Your task to perform on an android device: Go to Maps Image 0: 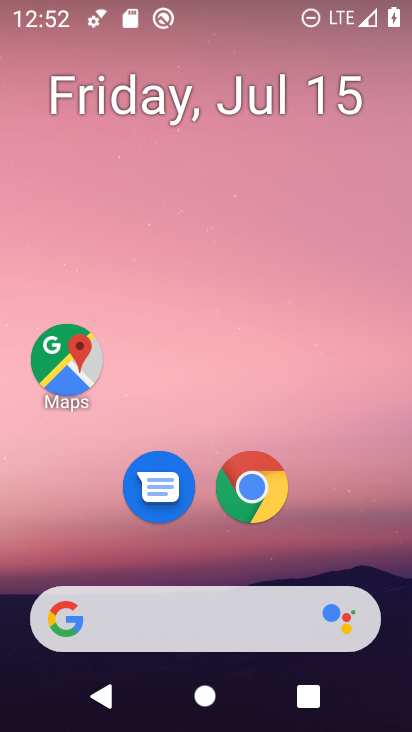
Step 0: drag from (233, 566) to (160, 50)
Your task to perform on an android device: Go to Maps Image 1: 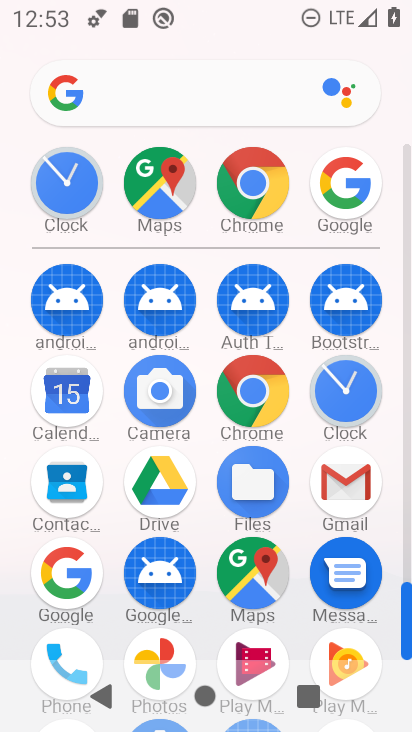
Step 1: click (163, 207)
Your task to perform on an android device: Go to Maps Image 2: 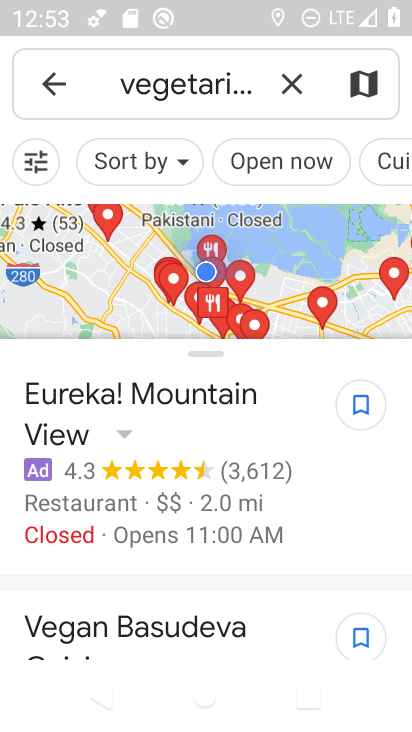
Step 2: task complete